Your task to perform on an android device: change notification settings in the gmail app Image 0: 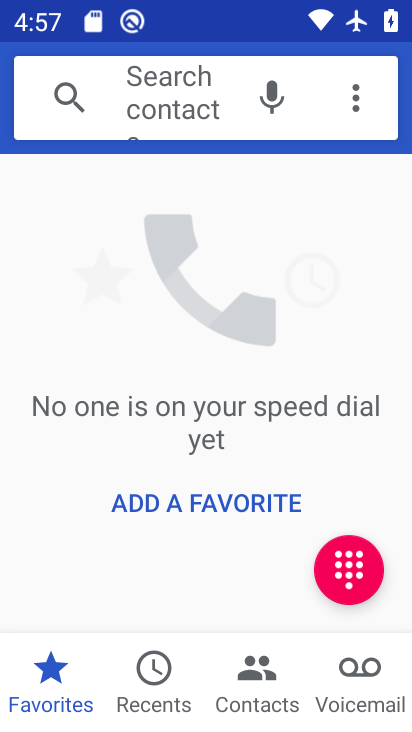
Step 0: press home button
Your task to perform on an android device: change notification settings in the gmail app Image 1: 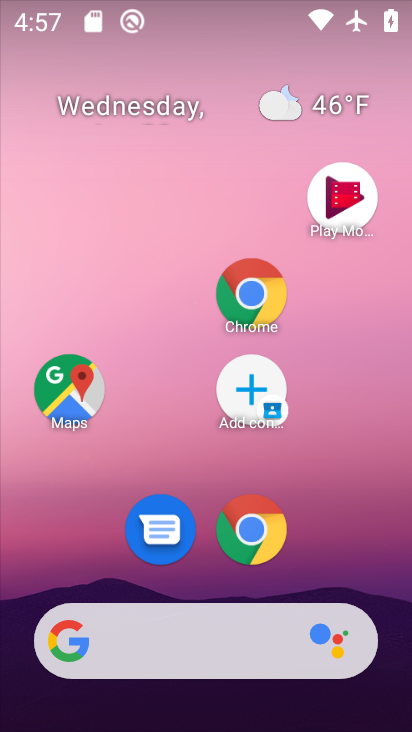
Step 1: drag from (342, 468) to (351, 215)
Your task to perform on an android device: change notification settings in the gmail app Image 2: 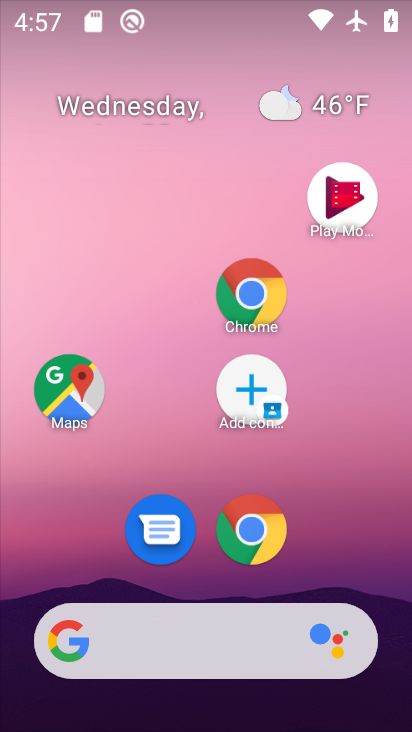
Step 2: drag from (314, 559) to (319, 218)
Your task to perform on an android device: change notification settings in the gmail app Image 3: 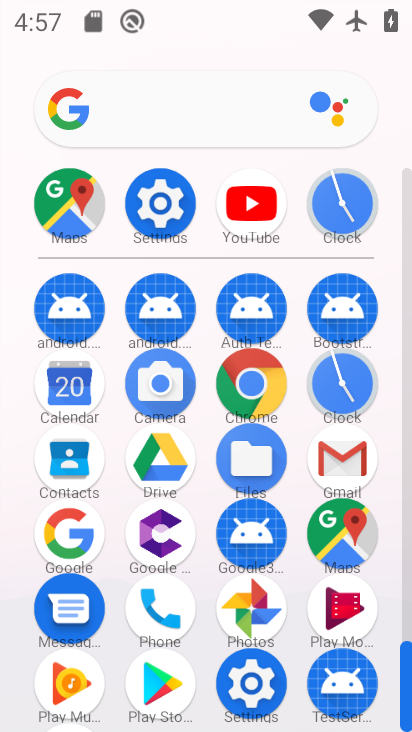
Step 3: click (348, 454)
Your task to perform on an android device: change notification settings in the gmail app Image 4: 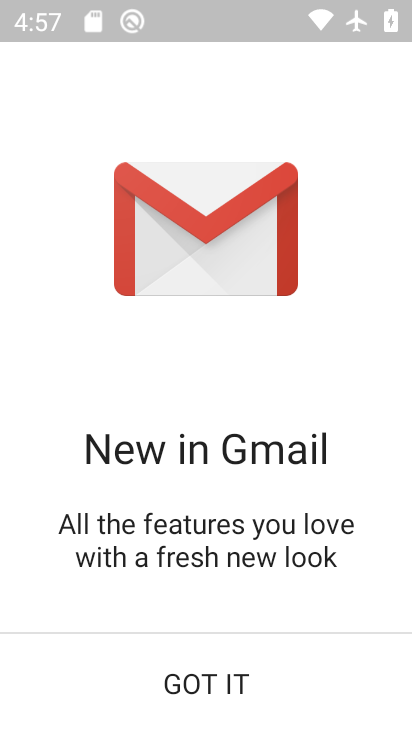
Step 4: click (238, 682)
Your task to perform on an android device: change notification settings in the gmail app Image 5: 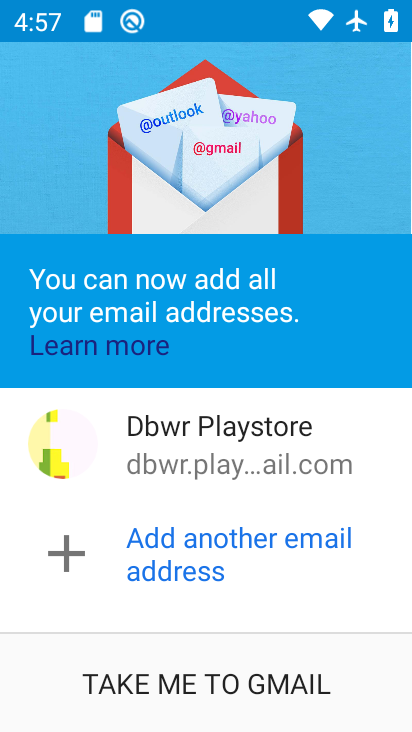
Step 5: click (237, 682)
Your task to perform on an android device: change notification settings in the gmail app Image 6: 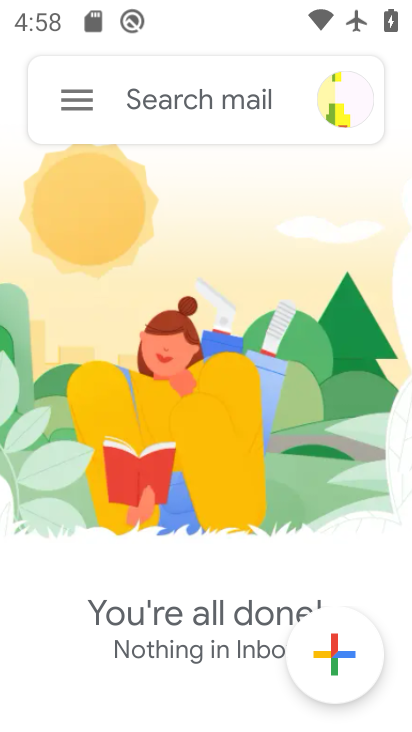
Step 6: click (70, 91)
Your task to perform on an android device: change notification settings in the gmail app Image 7: 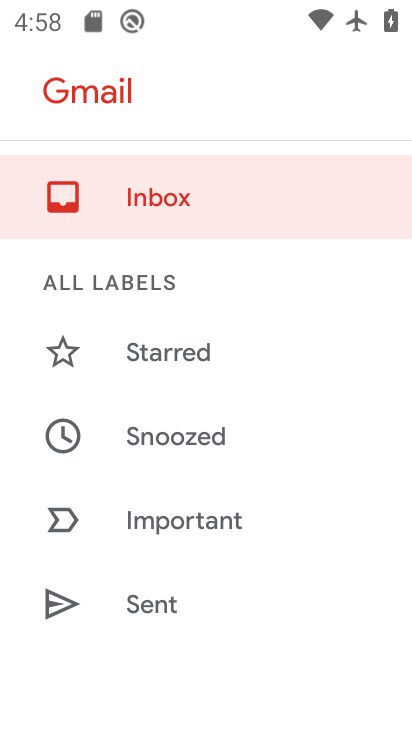
Step 7: drag from (206, 595) to (231, 210)
Your task to perform on an android device: change notification settings in the gmail app Image 8: 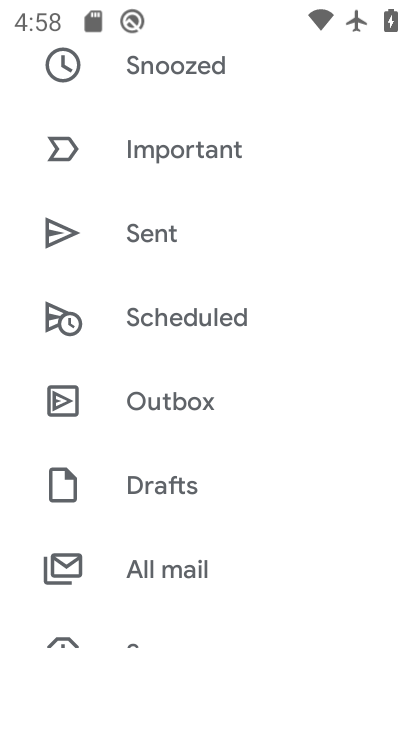
Step 8: drag from (239, 584) to (255, 179)
Your task to perform on an android device: change notification settings in the gmail app Image 9: 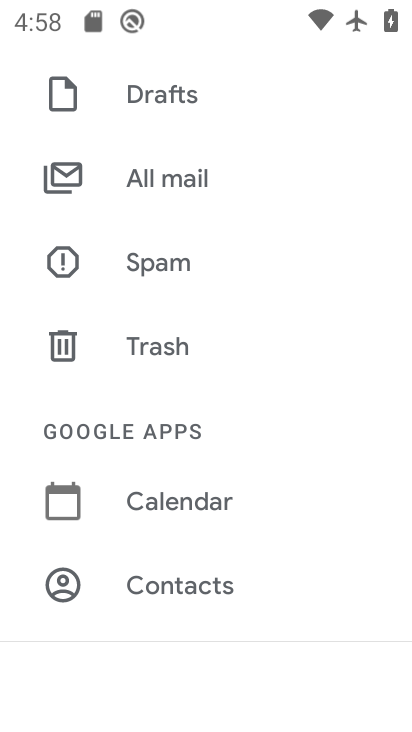
Step 9: drag from (224, 558) to (264, 141)
Your task to perform on an android device: change notification settings in the gmail app Image 10: 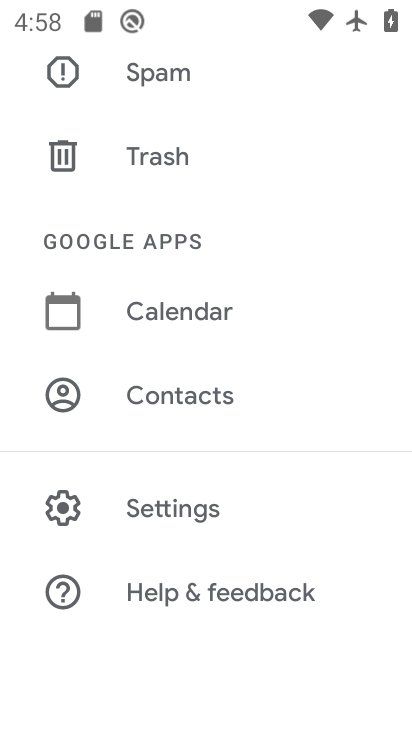
Step 10: click (197, 517)
Your task to perform on an android device: change notification settings in the gmail app Image 11: 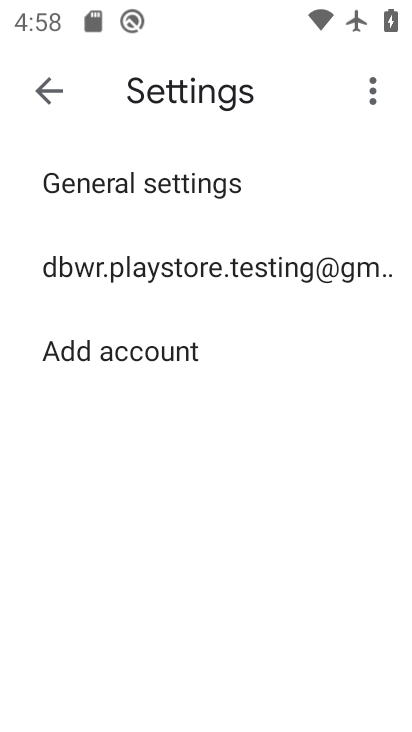
Step 11: click (214, 262)
Your task to perform on an android device: change notification settings in the gmail app Image 12: 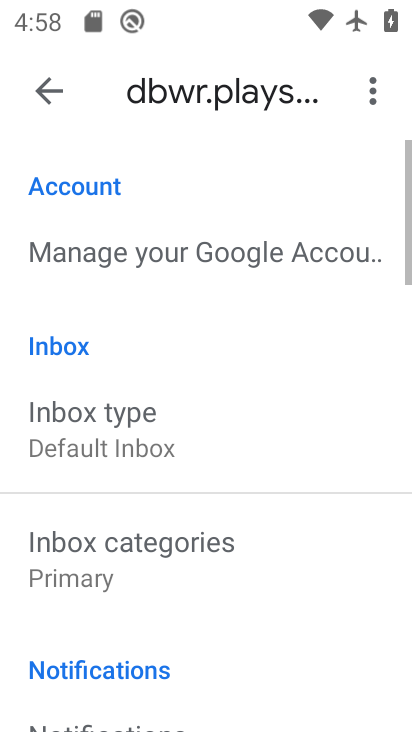
Step 12: drag from (215, 640) to (219, 370)
Your task to perform on an android device: change notification settings in the gmail app Image 13: 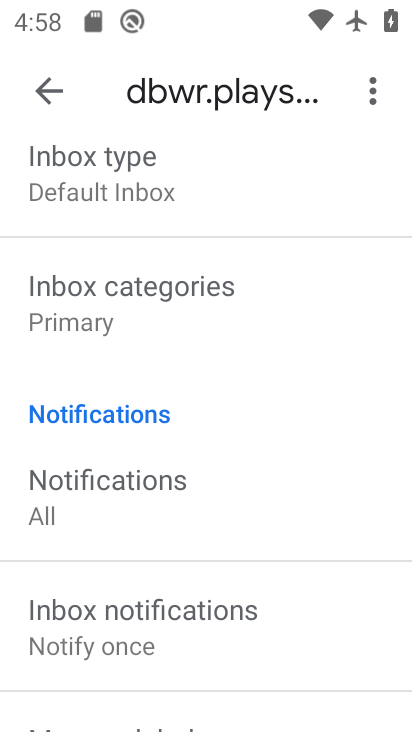
Step 13: click (132, 526)
Your task to perform on an android device: change notification settings in the gmail app Image 14: 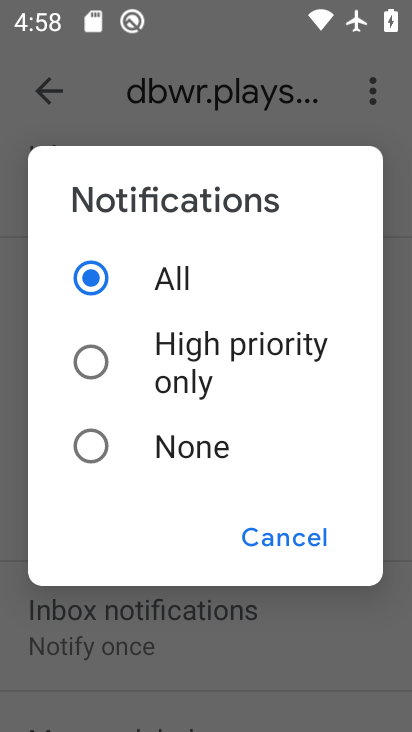
Step 14: click (222, 389)
Your task to perform on an android device: change notification settings in the gmail app Image 15: 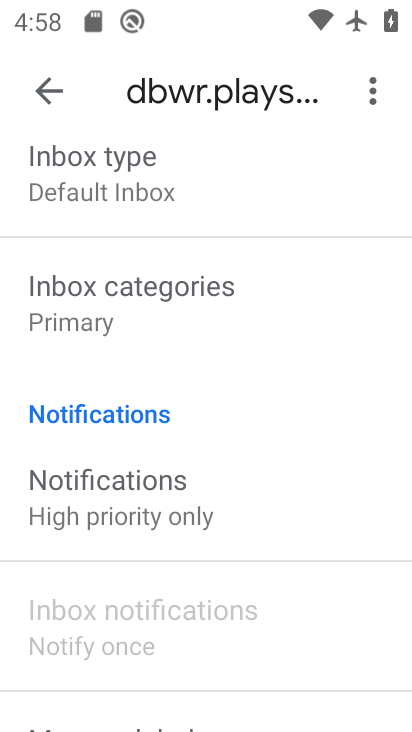
Step 15: task complete